Your task to perform on an android device: toggle location history Image 0: 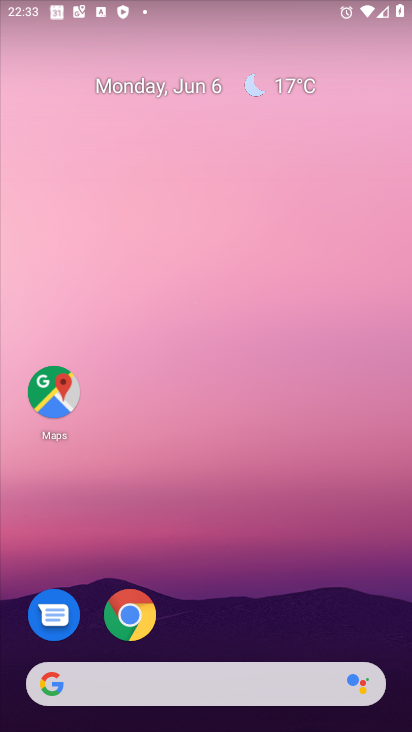
Step 0: drag from (401, 712) to (369, 290)
Your task to perform on an android device: toggle location history Image 1: 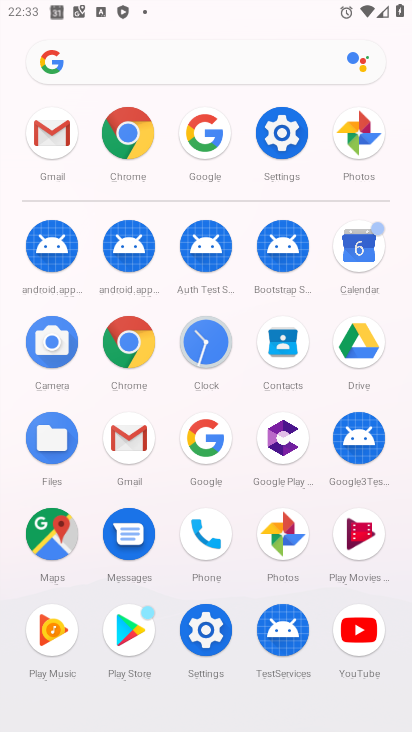
Step 1: click (282, 139)
Your task to perform on an android device: toggle location history Image 2: 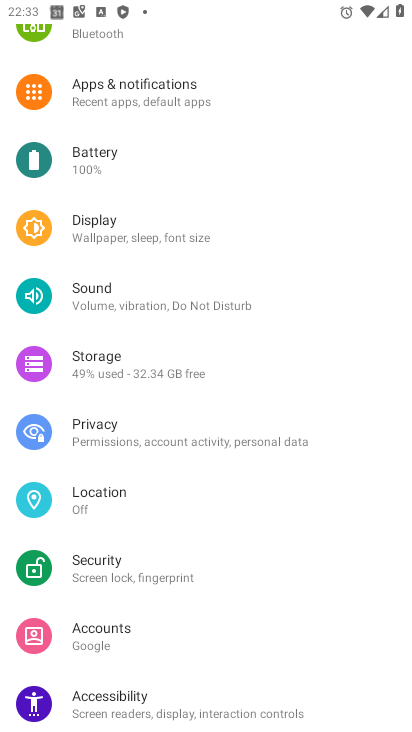
Step 2: click (103, 495)
Your task to perform on an android device: toggle location history Image 3: 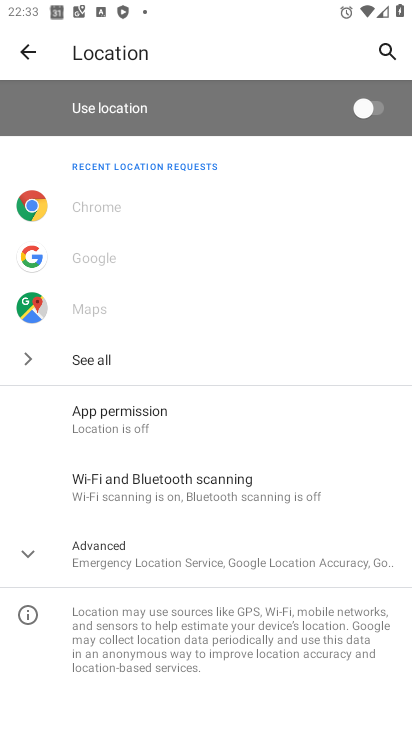
Step 3: click (50, 554)
Your task to perform on an android device: toggle location history Image 4: 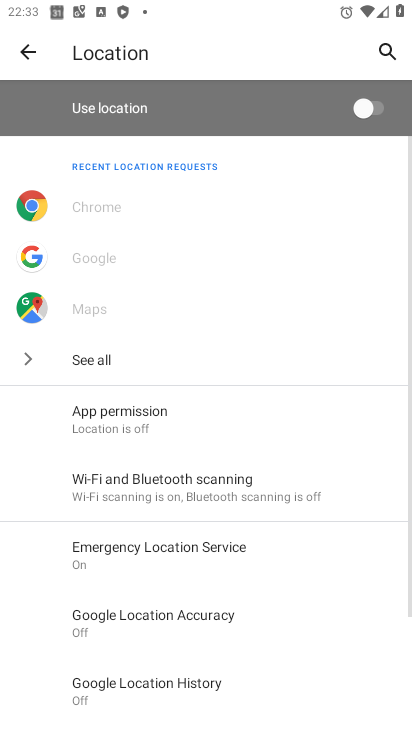
Step 4: drag from (299, 630) to (253, 283)
Your task to perform on an android device: toggle location history Image 5: 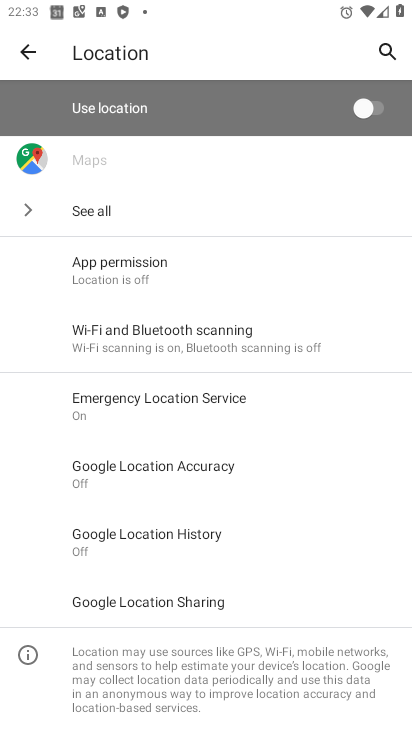
Step 5: click (132, 526)
Your task to perform on an android device: toggle location history Image 6: 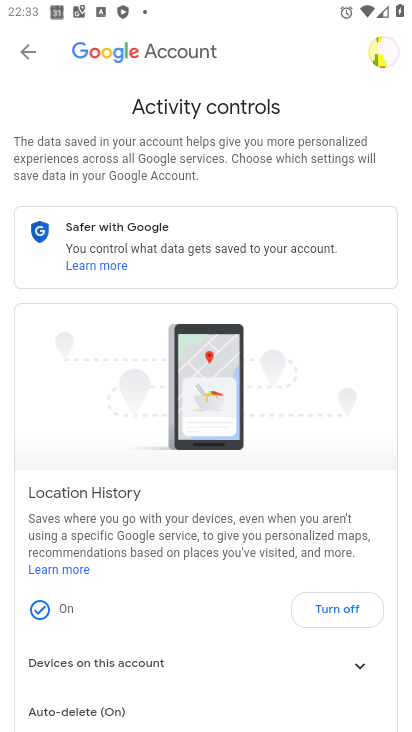
Step 6: click (350, 602)
Your task to perform on an android device: toggle location history Image 7: 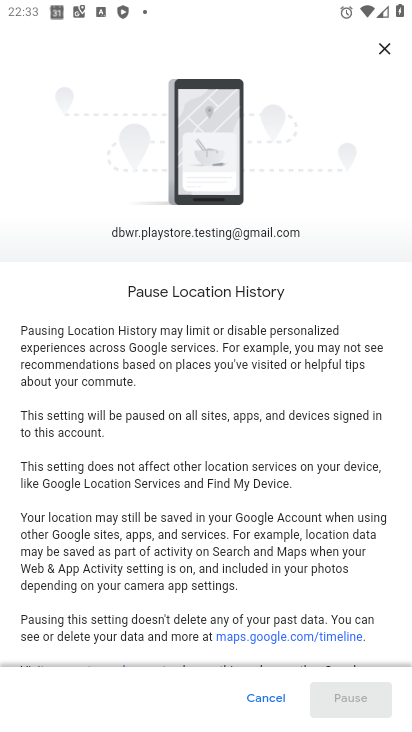
Step 7: drag from (290, 609) to (192, 270)
Your task to perform on an android device: toggle location history Image 8: 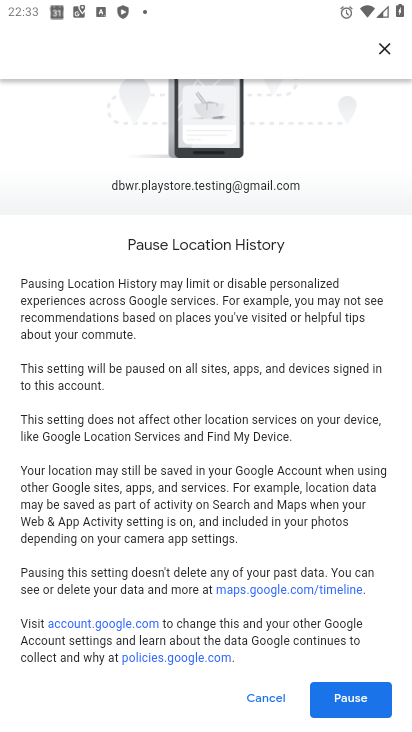
Step 8: click (333, 697)
Your task to perform on an android device: toggle location history Image 9: 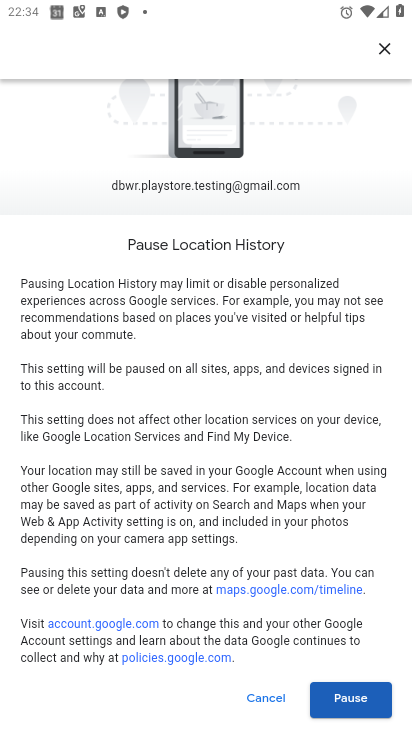
Step 9: click (363, 694)
Your task to perform on an android device: toggle location history Image 10: 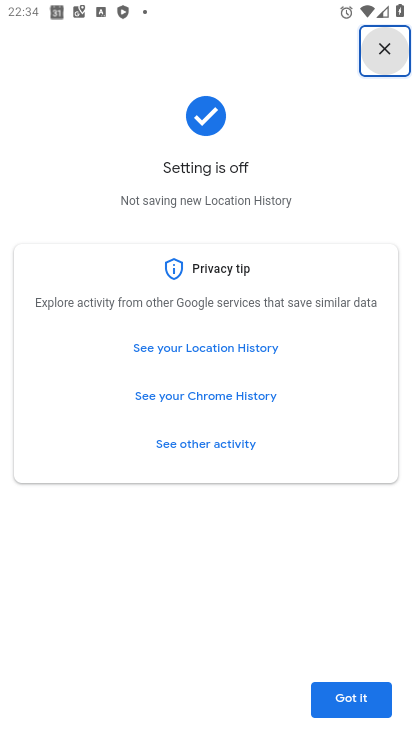
Step 10: click (335, 703)
Your task to perform on an android device: toggle location history Image 11: 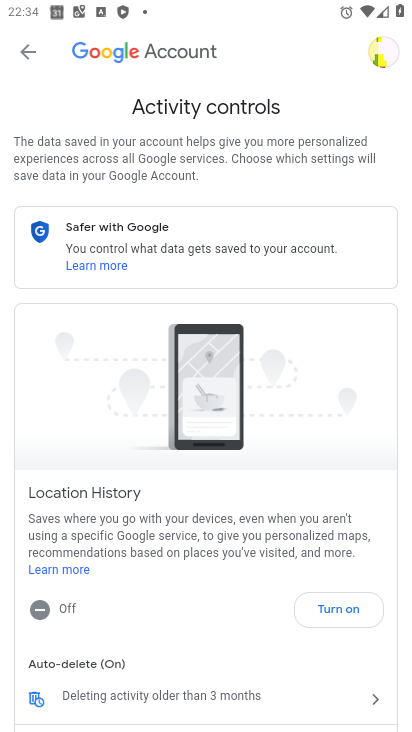
Step 11: task complete